Your task to perform on an android device: Do I have any events this weekend? Image 0: 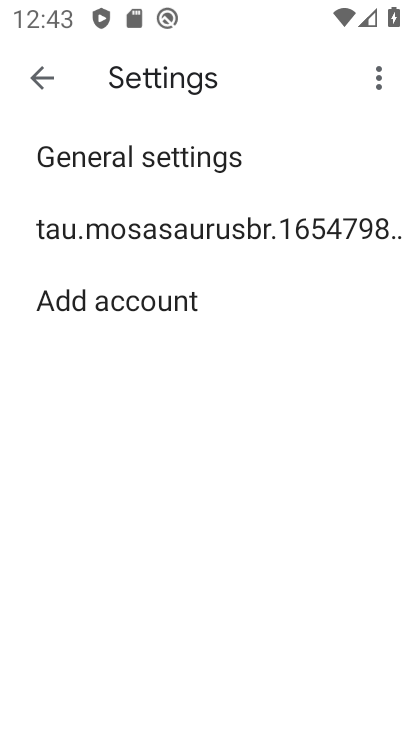
Step 0: press home button
Your task to perform on an android device: Do I have any events this weekend? Image 1: 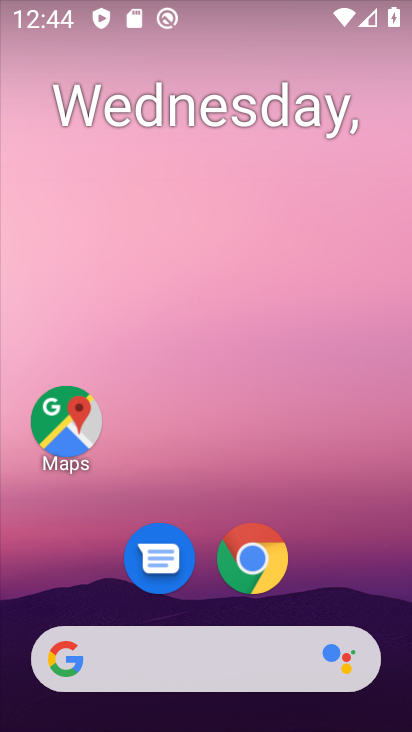
Step 1: drag from (359, 588) to (297, 239)
Your task to perform on an android device: Do I have any events this weekend? Image 2: 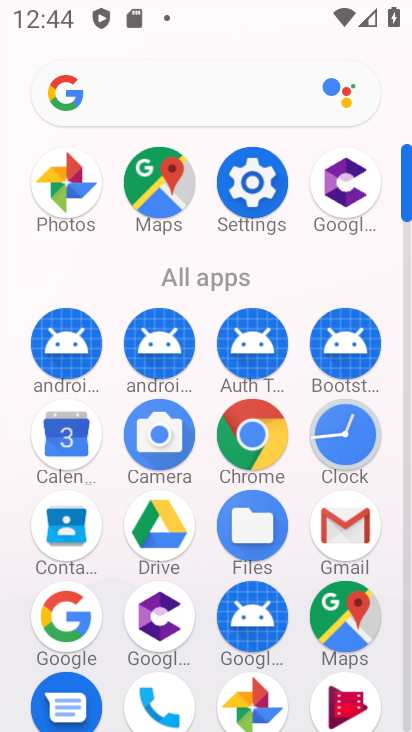
Step 2: click (55, 453)
Your task to perform on an android device: Do I have any events this weekend? Image 3: 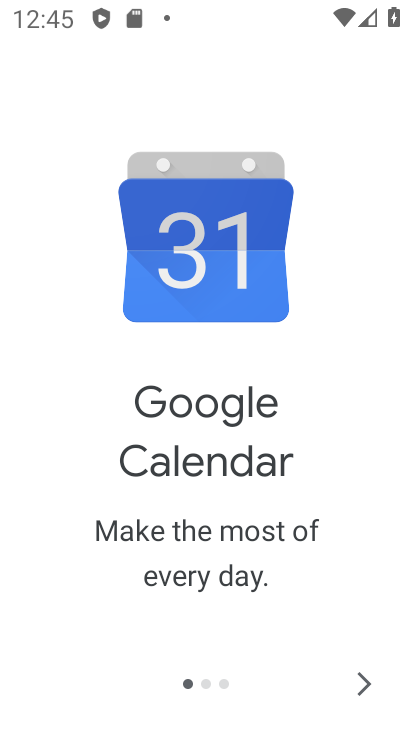
Step 3: click (366, 685)
Your task to perform on an android device: Do I have any events this weekend? Image 4: 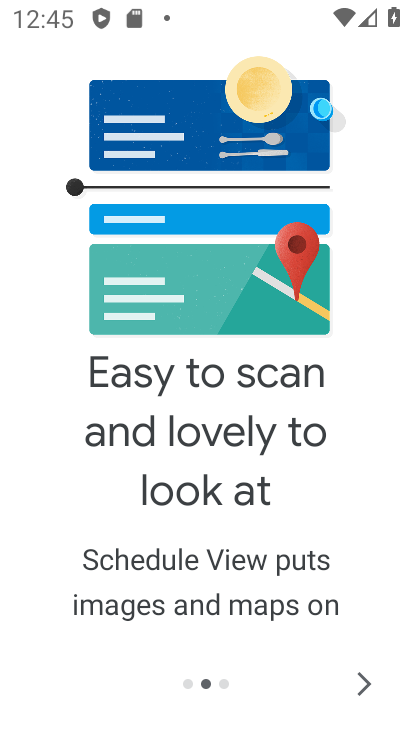
Step 4: click (366, 685)
Your task to perform on an android device: Do I have any events this weekend? Image 5: 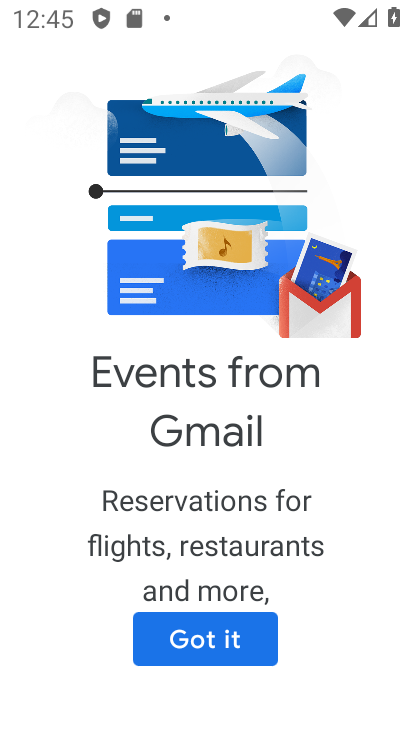
Step 5: click (252, 656)
Your task to perform on an android device: Do I have any events this weekend? Image 6: 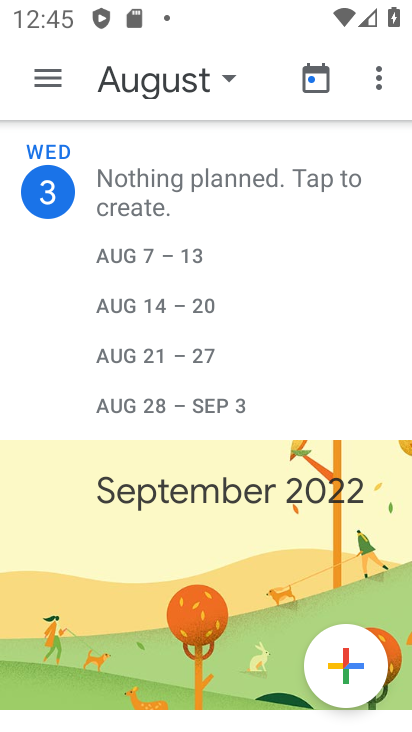
Step 6: click (47, 70)
Your task to perform on an android device: Do I have any events this weekend? Image 7: 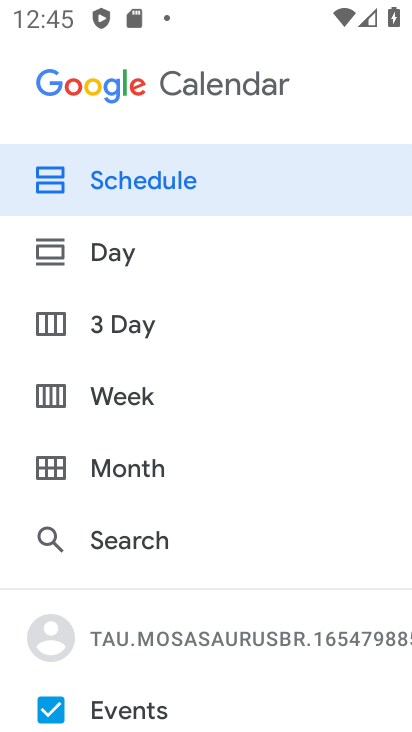
Step 7: click (140, 319)
Your task to perform on an android device: Do I have any events this weekend? Image 8: 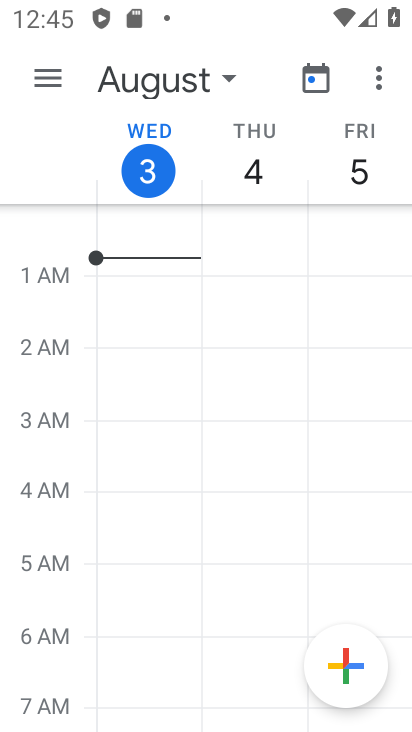
Step 8: click (191, 74)
Your task to perform on an android device: Do I have any events this weekend? Image 9: 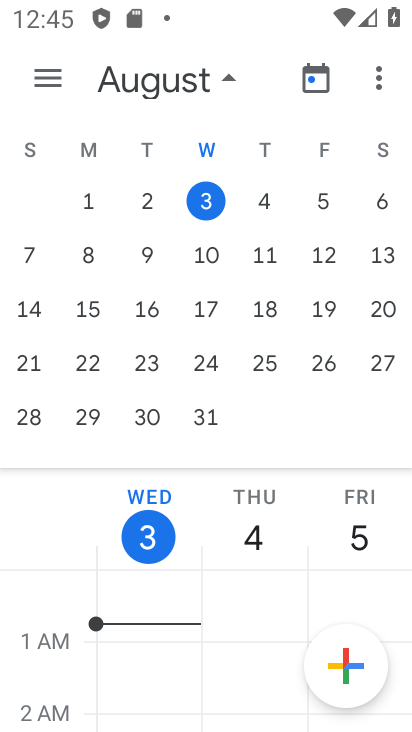
Step 9: click (327, 202)
Your task to perform on an android device: Do I have any events this weekend? Image 10: 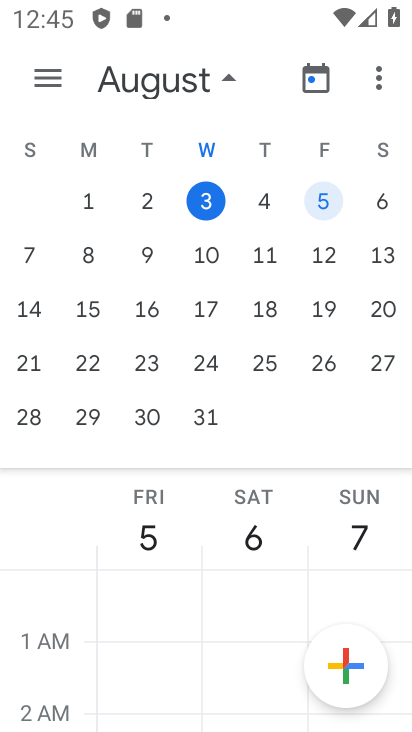
Step 10: task complete